Your task to perform on an android device: turn on the 24-hour format for clock Image 0: 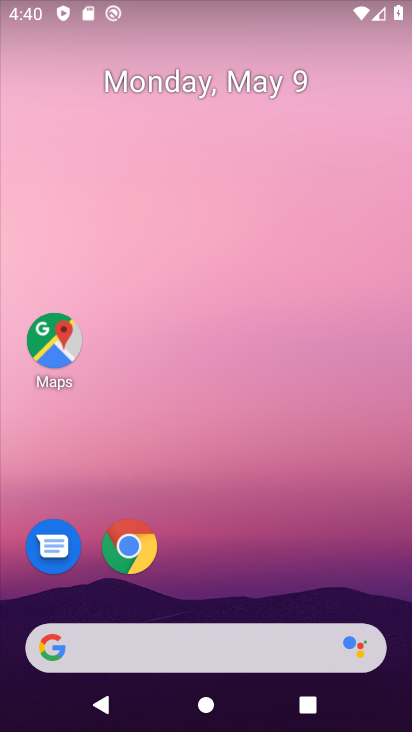
Step 0: drag from (246, 598) to (308, 4)
Your task to perform on an android device: turn on the 24-hour format for clock Image 1: 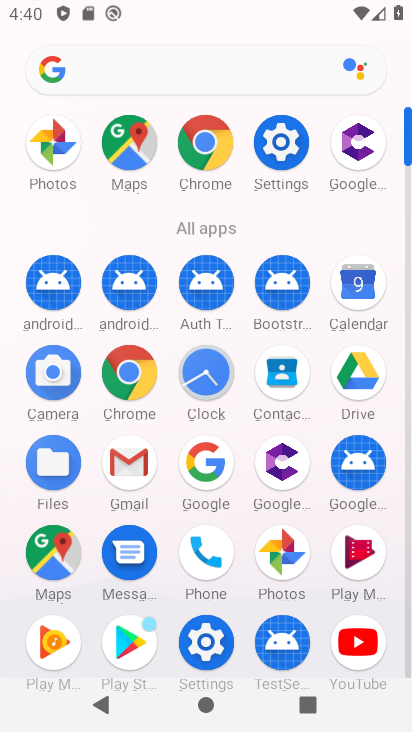
Step 1: click (290, 151)
Your task to perform on an android device: turn on the 24-hour format for clock Image 2: 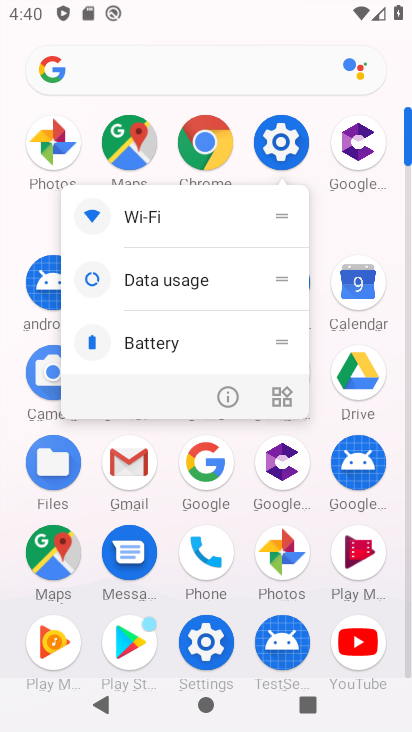
Step 2: click (291, 160)
Your task to perform on an android device: turn on the 24-hour format for clock Image 3: 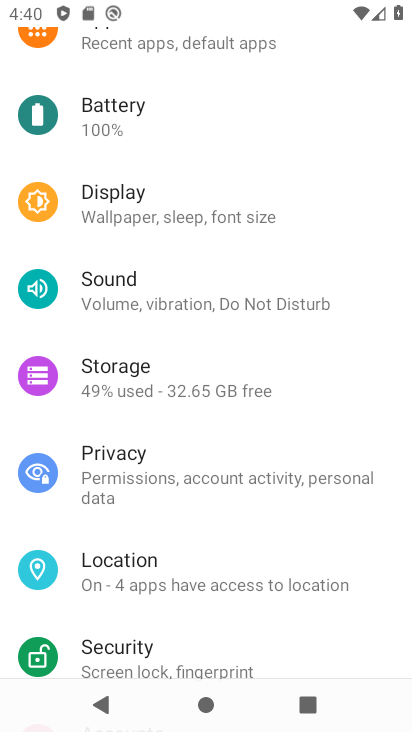
Step 3: drag from (199, 568) to (229, 306)
Your task to perform on an android device: turn on the 24-hour format for clock Image 4: 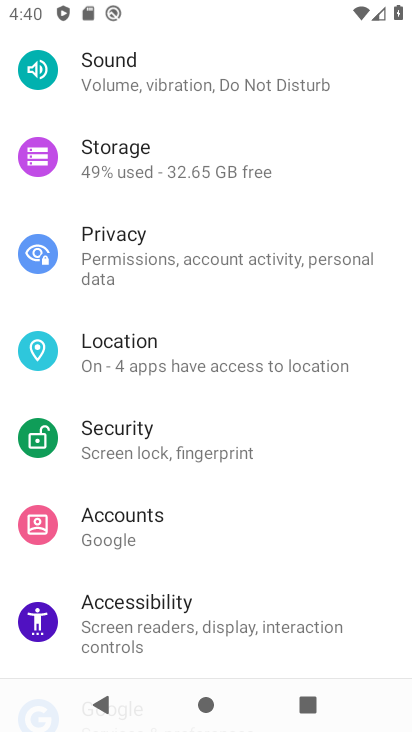
Step 4: drag from (180, 550) to (232, 271)
Your task to perform on an android device: turn on the 24-hour format for clock Image 5: 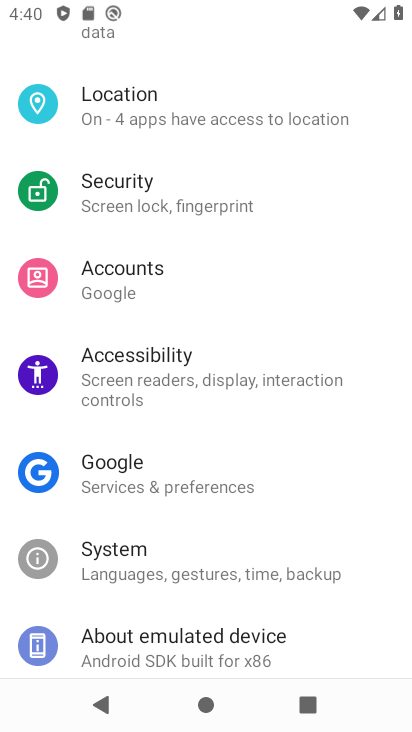
Step 5: drag from (177, 618) to (186, 418)
Your task to perform on an android device: turn on the 24-hour format for clock Image 6: 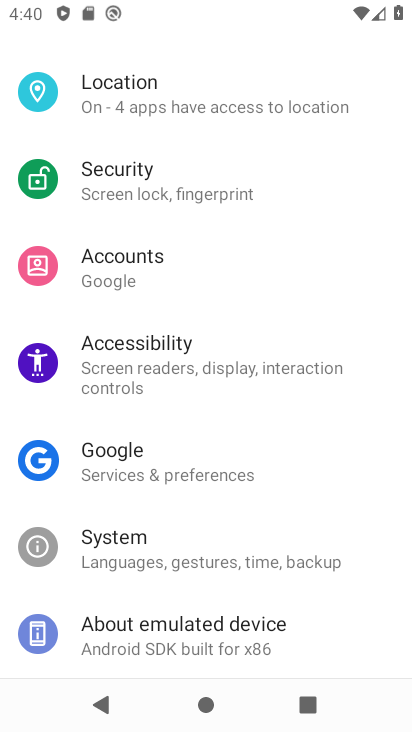
Step 6: click (142, 560)
Your task to perform on an android device: turn on the 24-hour format for clock Image 7: 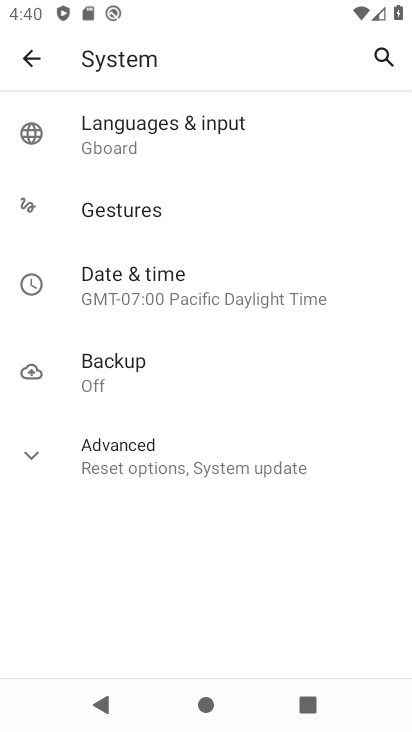
Step 7: click (188, 288)
Your task to perform on an android device: turn on the 24-hour format for clock Image 8: 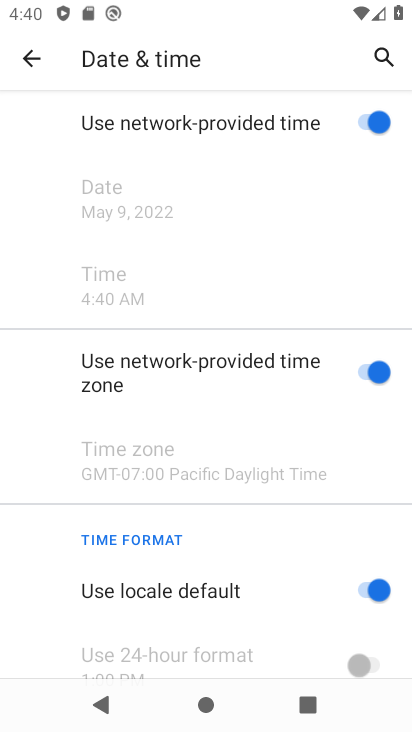
Step 8: drag from (180, 608) to (209, 425)
Your task to perform on an android device: turn on the 24-hour format for clock Image 9: 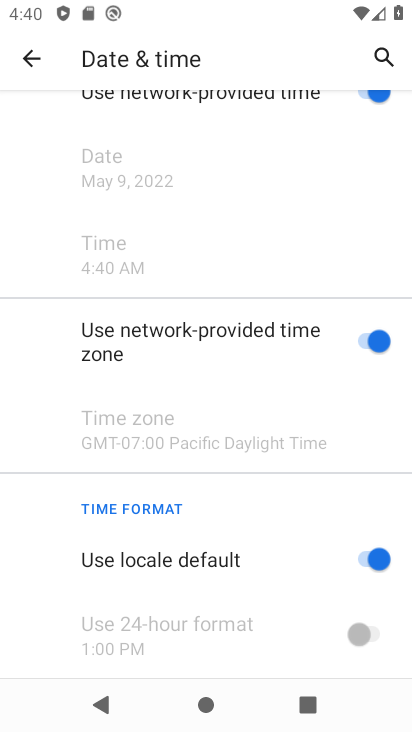
Step 9: click (354, 542)
Your task to perform on an android device: turn on the 24-hour format for clock Image 10: 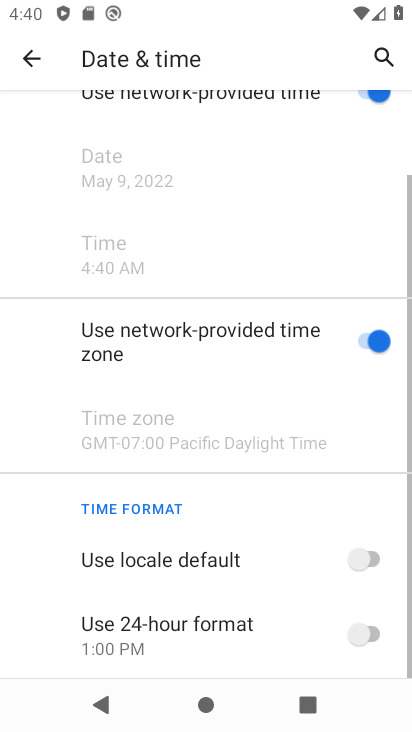
Step 10: click (386, 629)
Your task to perform on an android device: turn on the 24-hour format for clock Image 11: 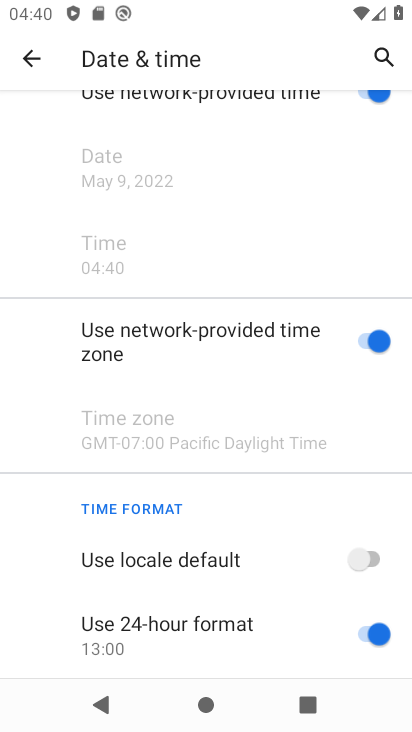
Step 11: task complete